Your task to perform on an android device: turn off javascript in the chrome app Image 0: 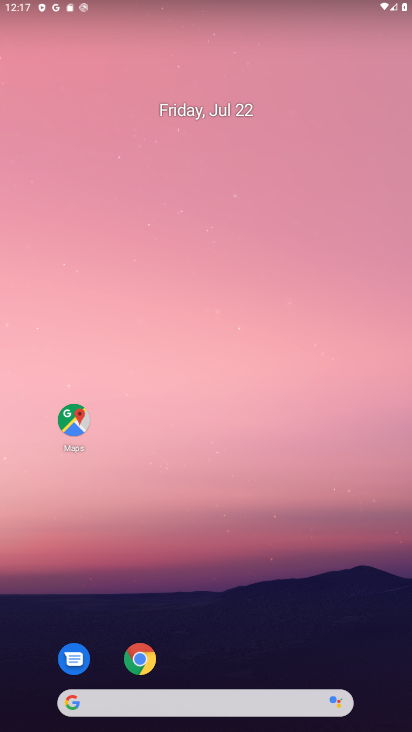
Step 0: click (143, 659)
Your task to perform on an android device: turn off javascript in the chrome app Image 1: 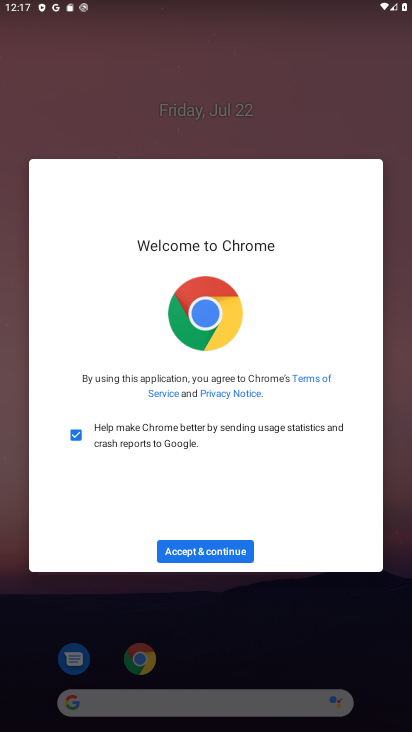
Step 1: click (200, 548)
Your task to perform on an android device: turn off javascript in the chrome app Image 2: 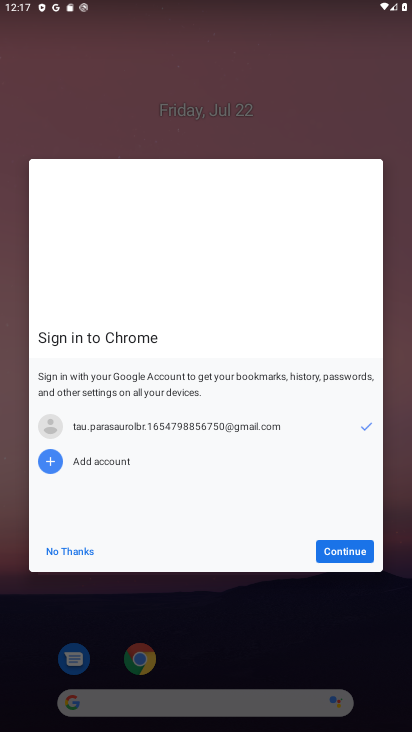
Step 2: click (343, 552)
Your task to perform on an android device: turn off javascript in the chrome app Image 3: 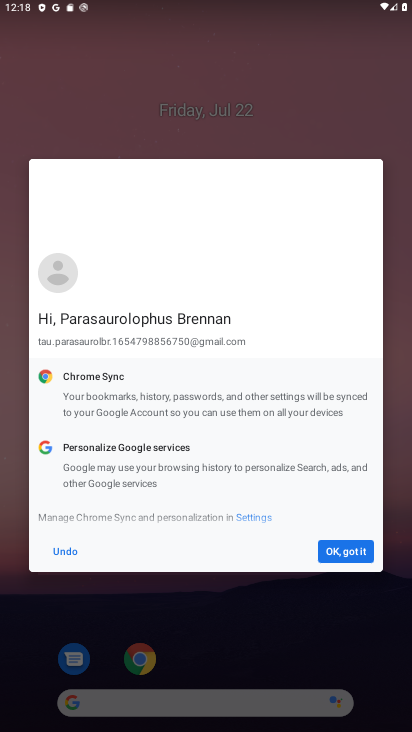
Step 3: click (346, 546)
Your task to perform on an android device: turn off javascript in the chrome app Image 4: 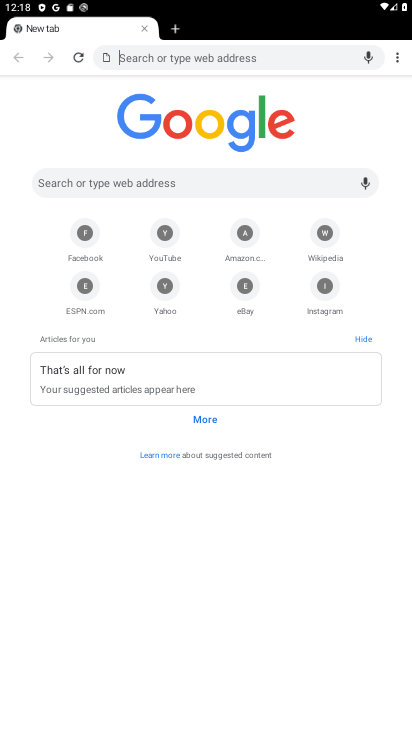
Step 4: click (392, 57)
Your task to perform on an android device: turn off javascript in the chrome app Image 5: 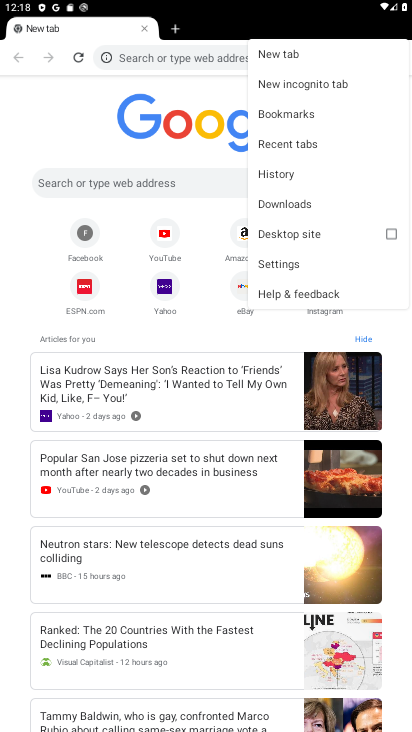
Step 5: click (274, 258)
Your task to perform on an android device: turn off javascript in the chrome app Image 6: 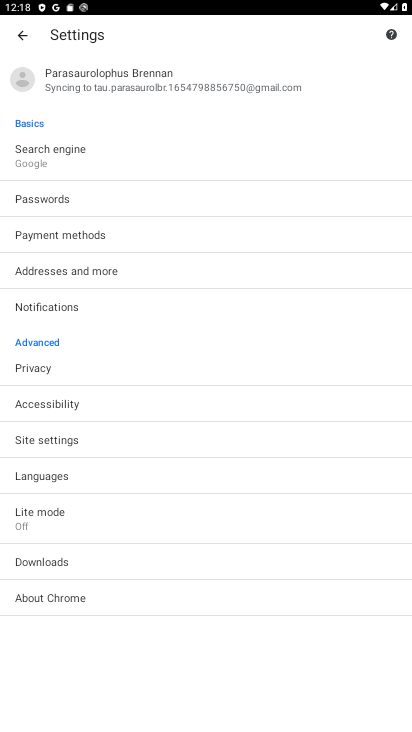
Step 6: click (52, 437)
Your task to perform on an android device: turn off javascript in the chrome app Image 7: 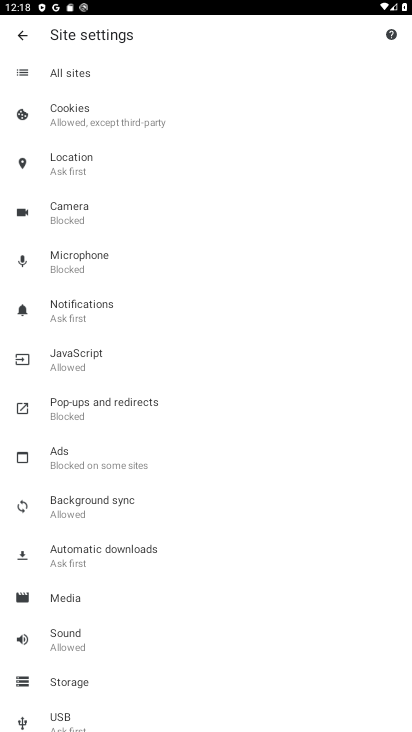
Step 7: click (79, 357)
Your task to perform on an android device: turn off javascript in the chrome app Image 8: 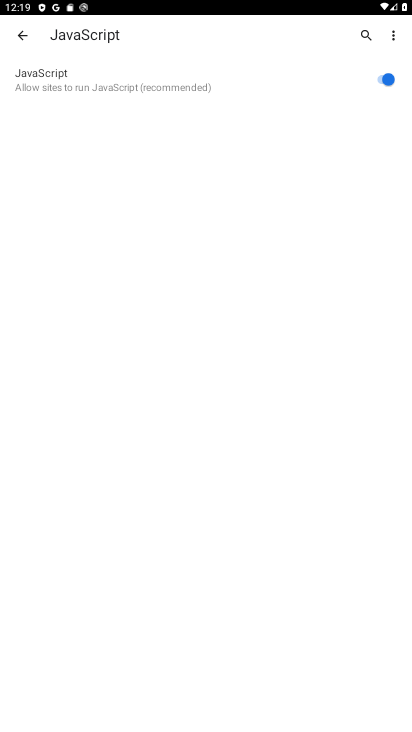
Step 8: click (378, 90)
Your task to perform on an android device: turn off javascript in the chrome app Image 9: 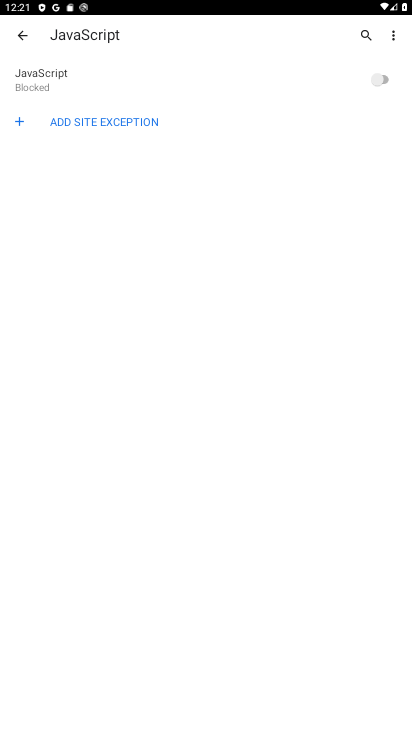
Step 9: task complete